Your task to perform on an android device: Go to notification settings Image 0: 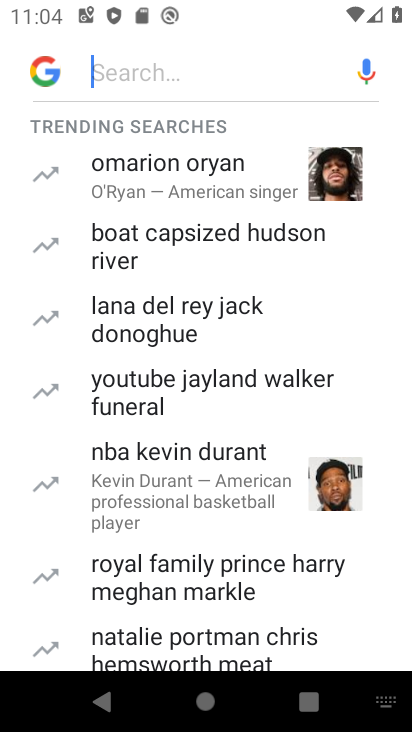
Step 0: press home button
Your task to perform on an android device: Go to notification settings Image 1: 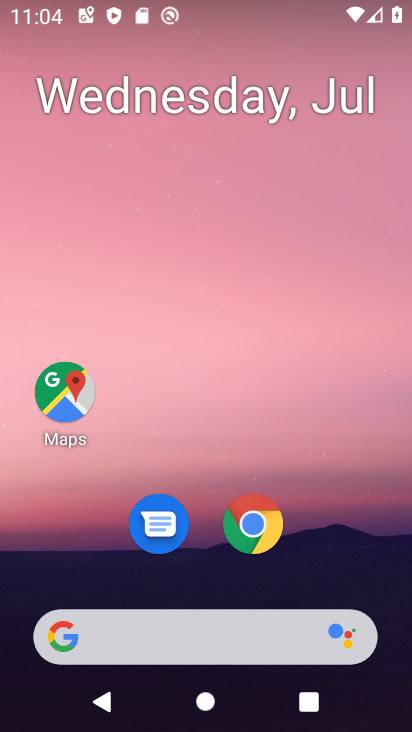
Step 1: drag from (168, 607) to (240, 203)
Your task to perform on an android device: Go to notification settings Image 2: 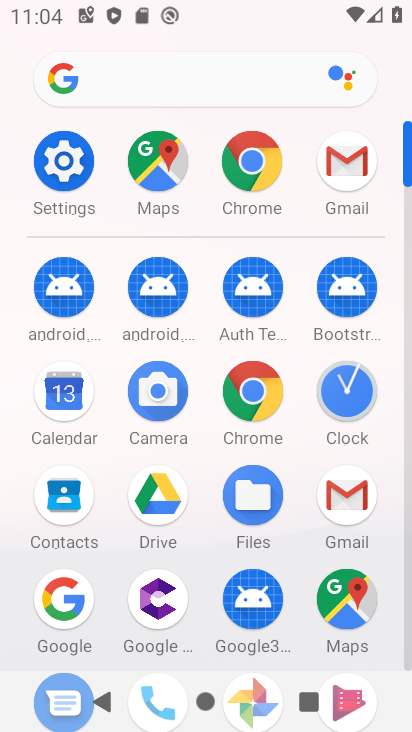
Step 2: click (71, 171)
Your task to perform on an android device: Go to notification settings Image 3: 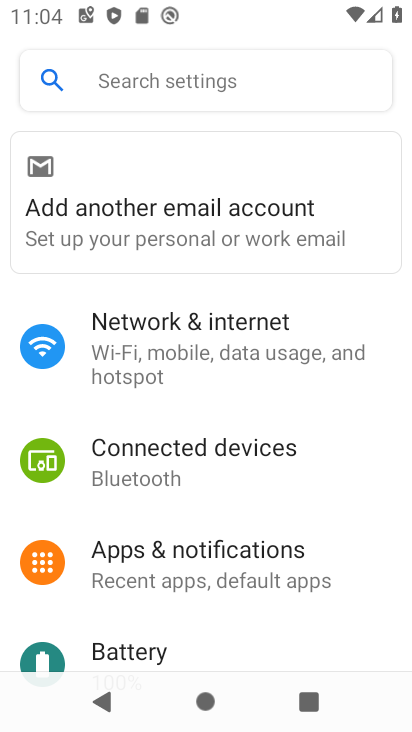
Step 3: click (209, 565)
Your task to perform on an android device: Go to notification settings Image 4: 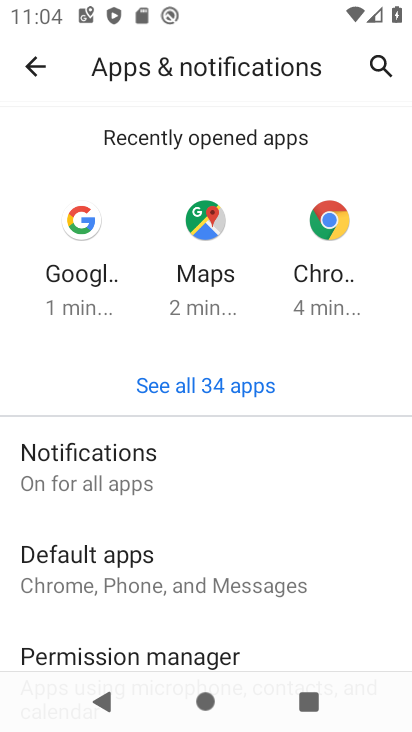
Step 4: click (105, 475)
Your task to perform on an android device: Go to notification settings Image 5: 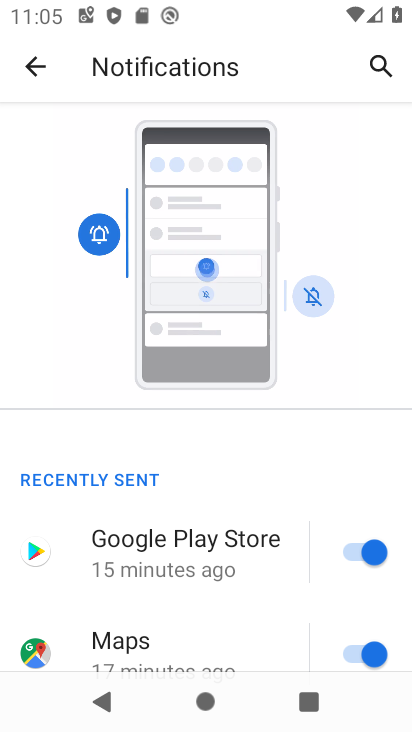
Step 5: task complete